Your task to perform on an android device: Open network settings Image 0: 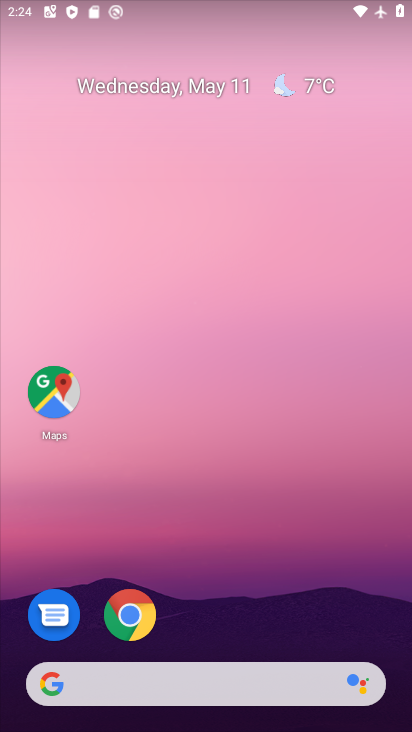
Step 0: drag from (206, 3) to (268, 593)
Your task to perform on an android device: Open network settings Image 1: 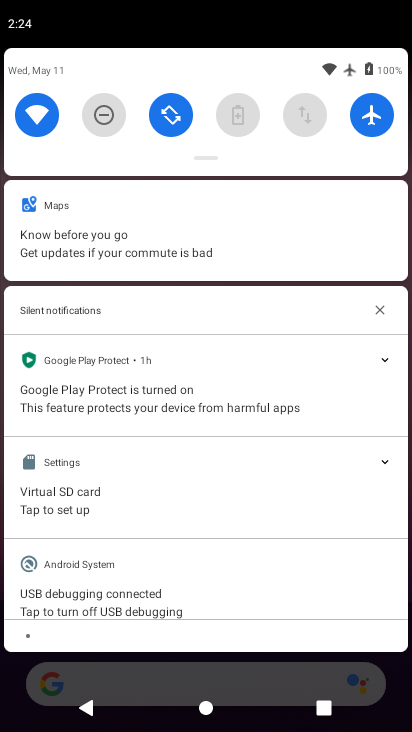
Step 1: drag from (257, 684) to (296, 156)
Your task to perform on an android device: Open network settings Image 2: 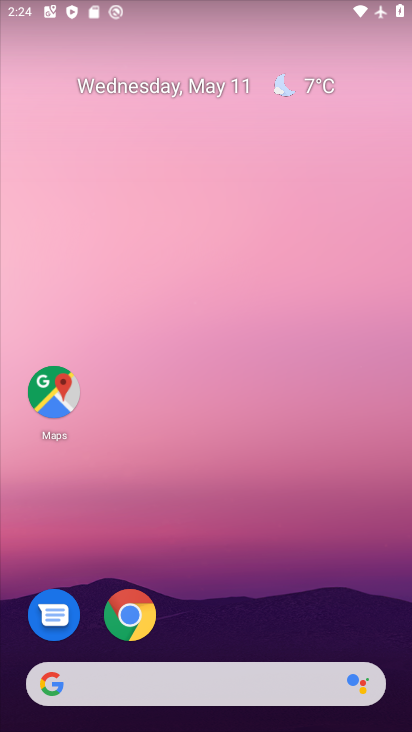
Step 2: drag from (277, 424) to (259, 55)
Your task to perform on an android device: Open network settings Image 3: 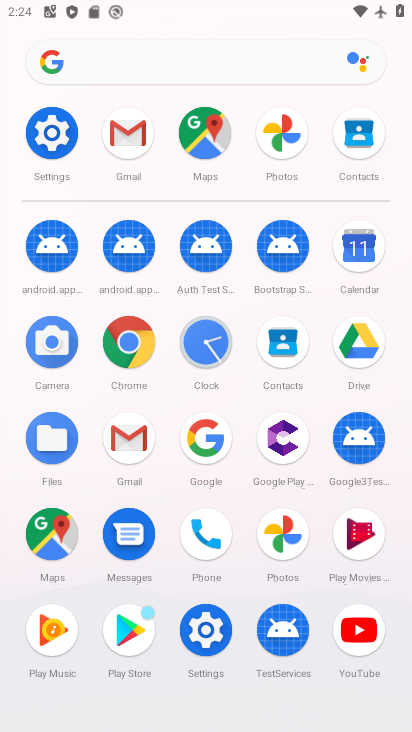
Step 3: click (62, 141)
Your task to perform on an android device: Open network settings Image 4: 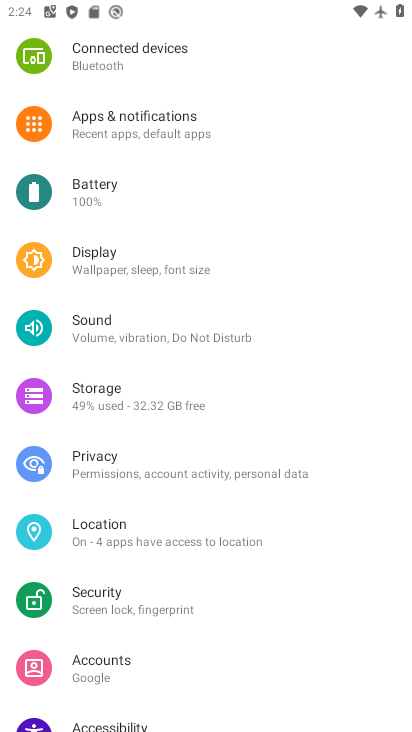
Step 4: drag from (235, 542) to (275, 167)
Your task to perform on an android device: Open network settings Image 5: 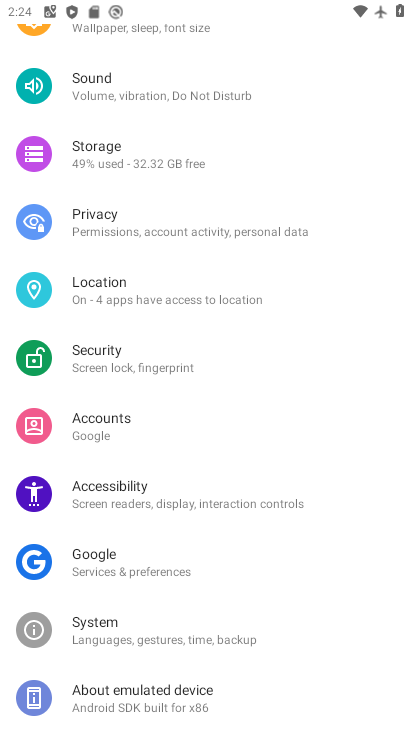
Step 5: drag from (240, 179) to (277, 725)
Your task to perform on an android device: Open network settings Image 6: 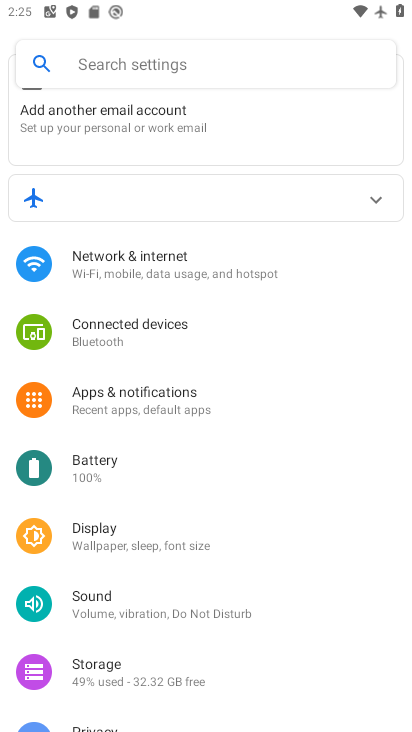
Step 6: click (134, 252)
Your task to perform on an android device: Open network settings Image 7: 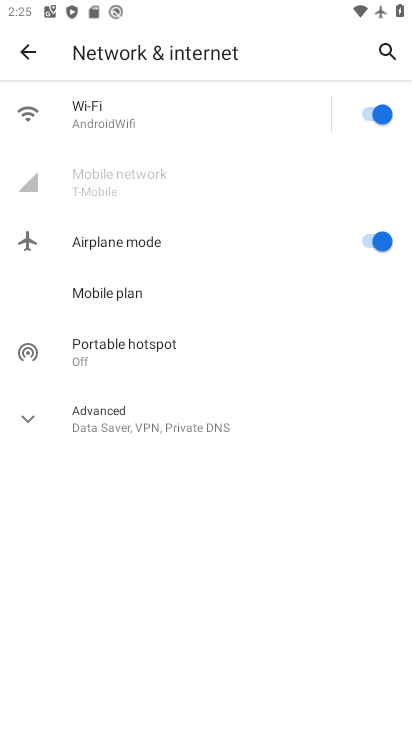
Step 7: task complete